Your task to perform on an android device: Go to display settings Image 0: 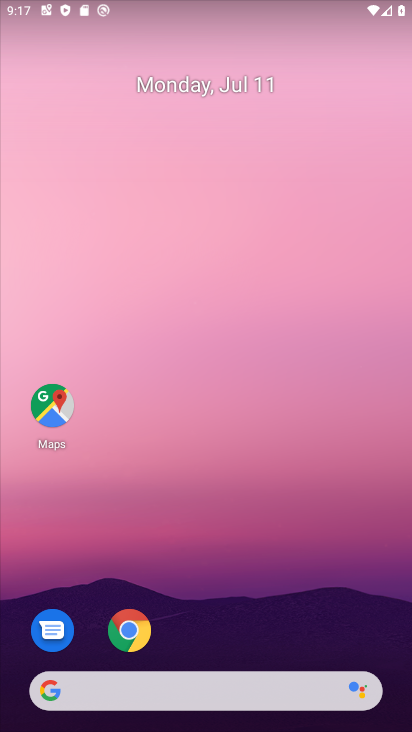
Step 0: drag from (222, 603) to (316, 0)
Your task to perform on an android device: Go to display settings Image 1: 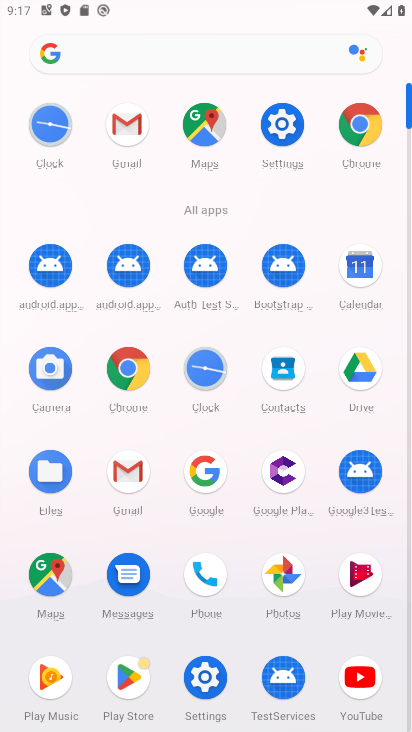
Step 1: click (268, 108)
Your task to perform on an android device: Go to display settings Image 2: 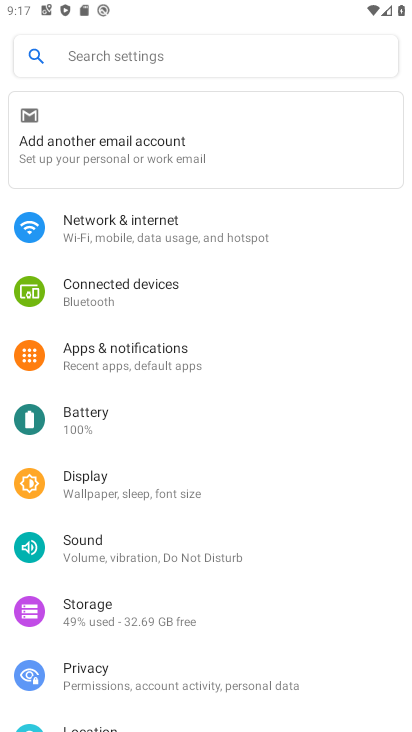
Step 2: click (77, 472)
Your task to perform on an android device: Go to display settings Image 3: 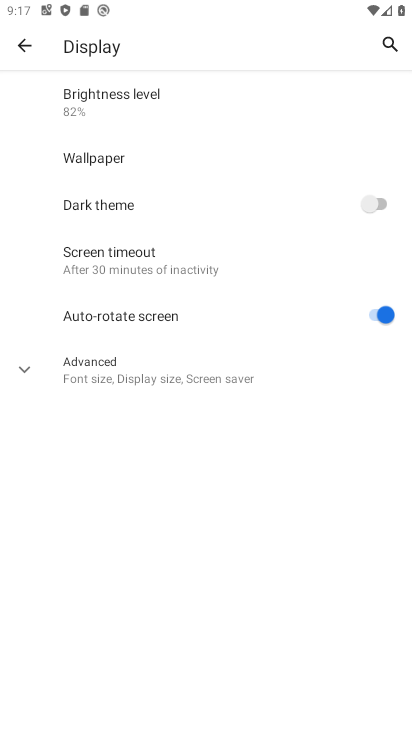
Step 3: task complete